Your task to perform on an android device: Open Google Image 0: 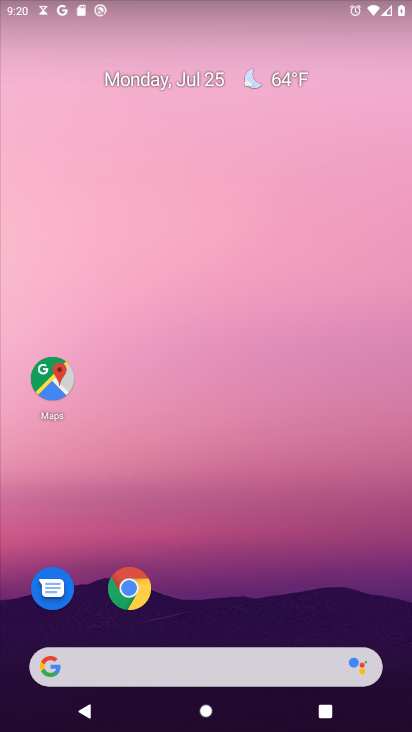
Step 0: drag from (188, 653) to (202, 38)
Your task to perform on an android device: Open Google Image 1: 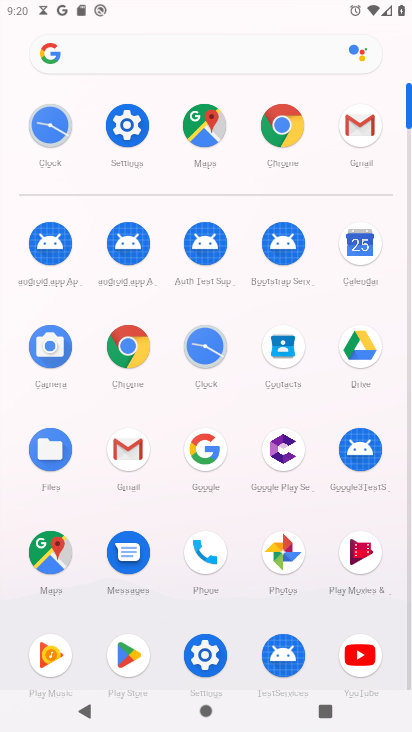
Step 1: click (202, 445)
Your task to perform on an android device: Open Google Image 2: 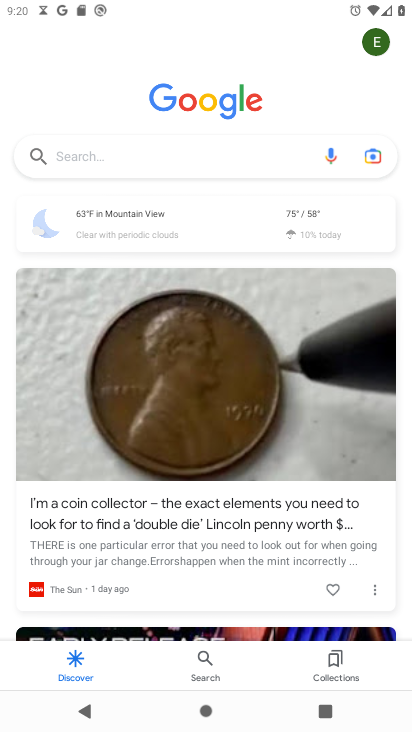
Step 2: task complete